Your task to perform on an android device: choose inbox layout in the gmail app Image 0: 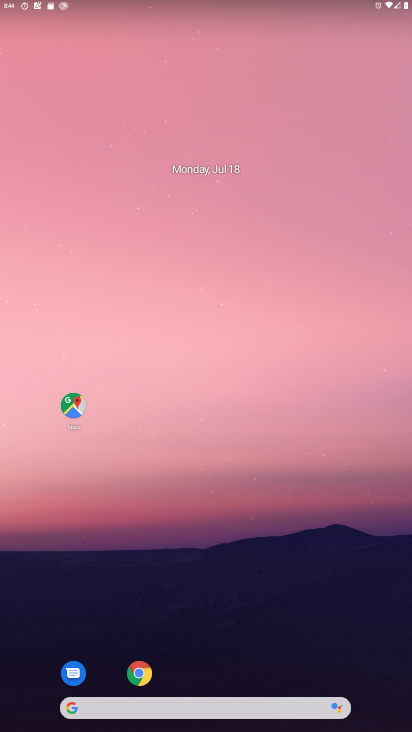
Step 0: drag from (184, 541) to (199, 302)
Your task to perform on an android device: choose inbox layout in the gmail app Image 1: 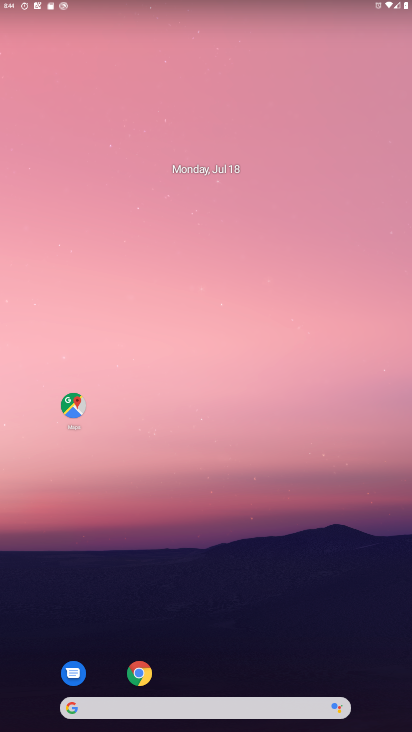
Step 1: drag from (186, 563) to (199, 330)
Your task to perform on an android device: choose inbox layout in the gmail app Image 2: 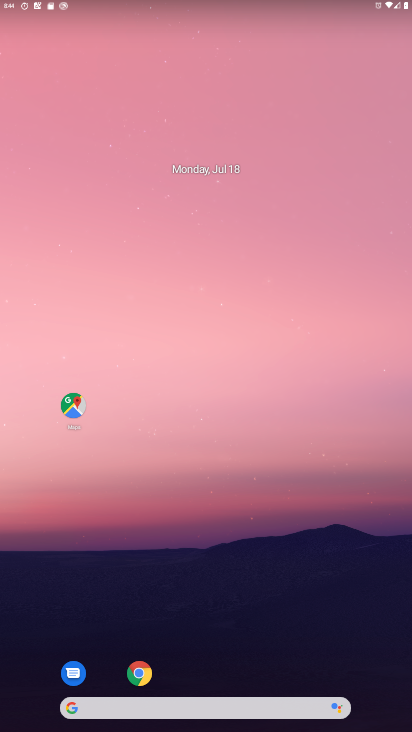
Step 2: drag from (182, 621) to (213, 77)
Your task to perform on an android device: choose inbox layout in the gmail app Image 3: 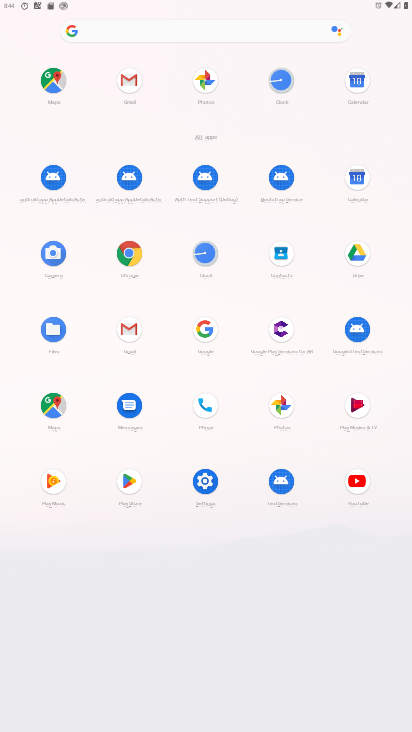
Step 3: click (123, 88)
Your task to perform on an android device: choose inbox layout in the gmail app Image 4: 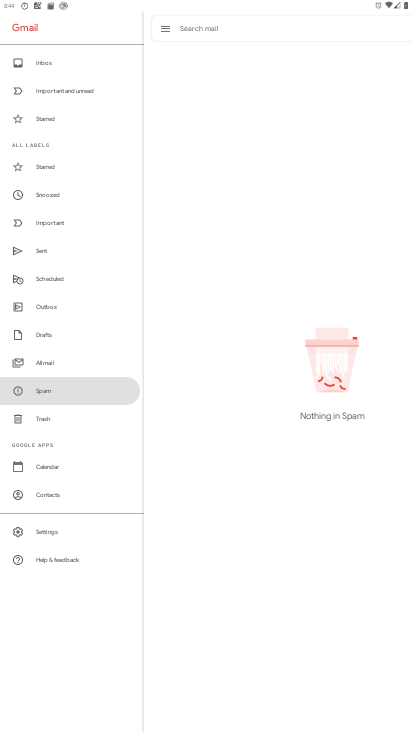
Step 4: click (37, 537)
Your task to perform on an android device: choose inbox layout in the gmail app Image 5: 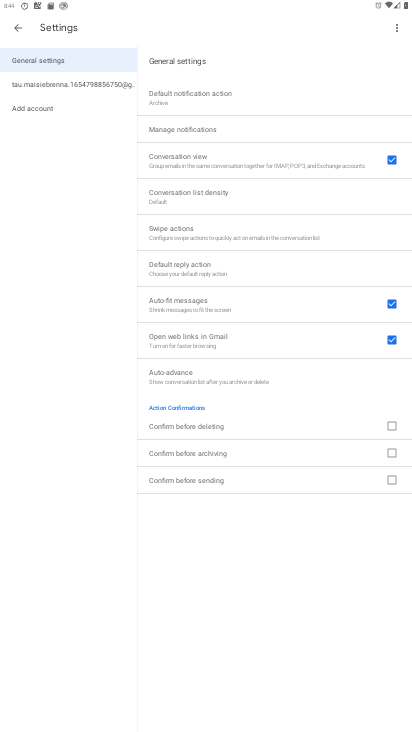
Step 5: click (64, 81)
Your task to perform on an android device: choose inbox layout in the gmail app Image 6: 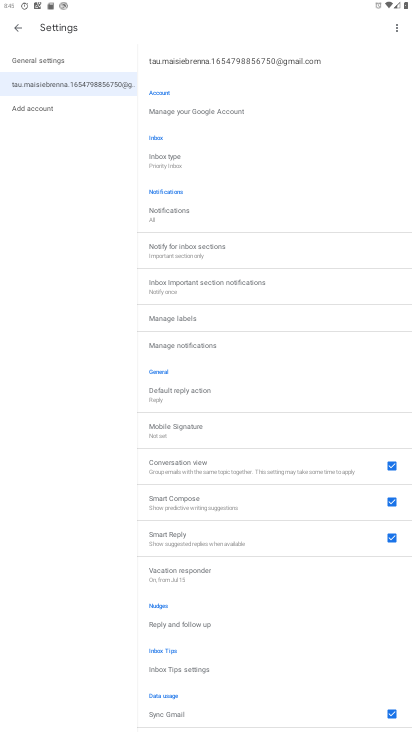
Step 6: click (187, 158)
Your task to perform on an android device: choose inbox layout in the gmail app Image 7: 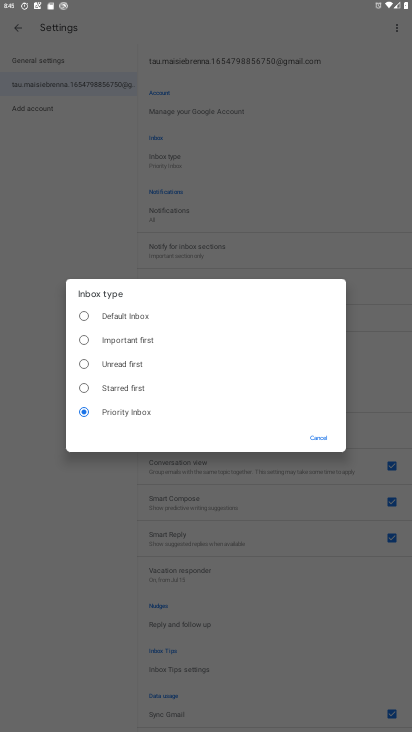
Step 7: click (88, 317)
Your task to perform on an android device: choose inbox layout in the gmail app Image 8: 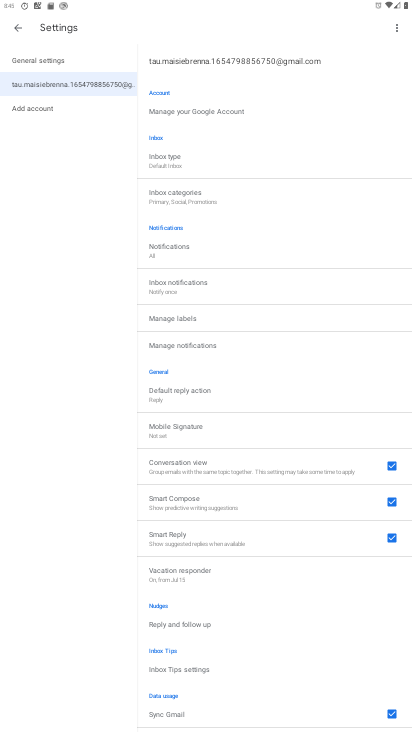
Step 8: task complete